Your task to perform on an android device: Empty the shopping cart on ebay. Add beats solo 3 to the cart on ebay, then select checkout. Image 0: 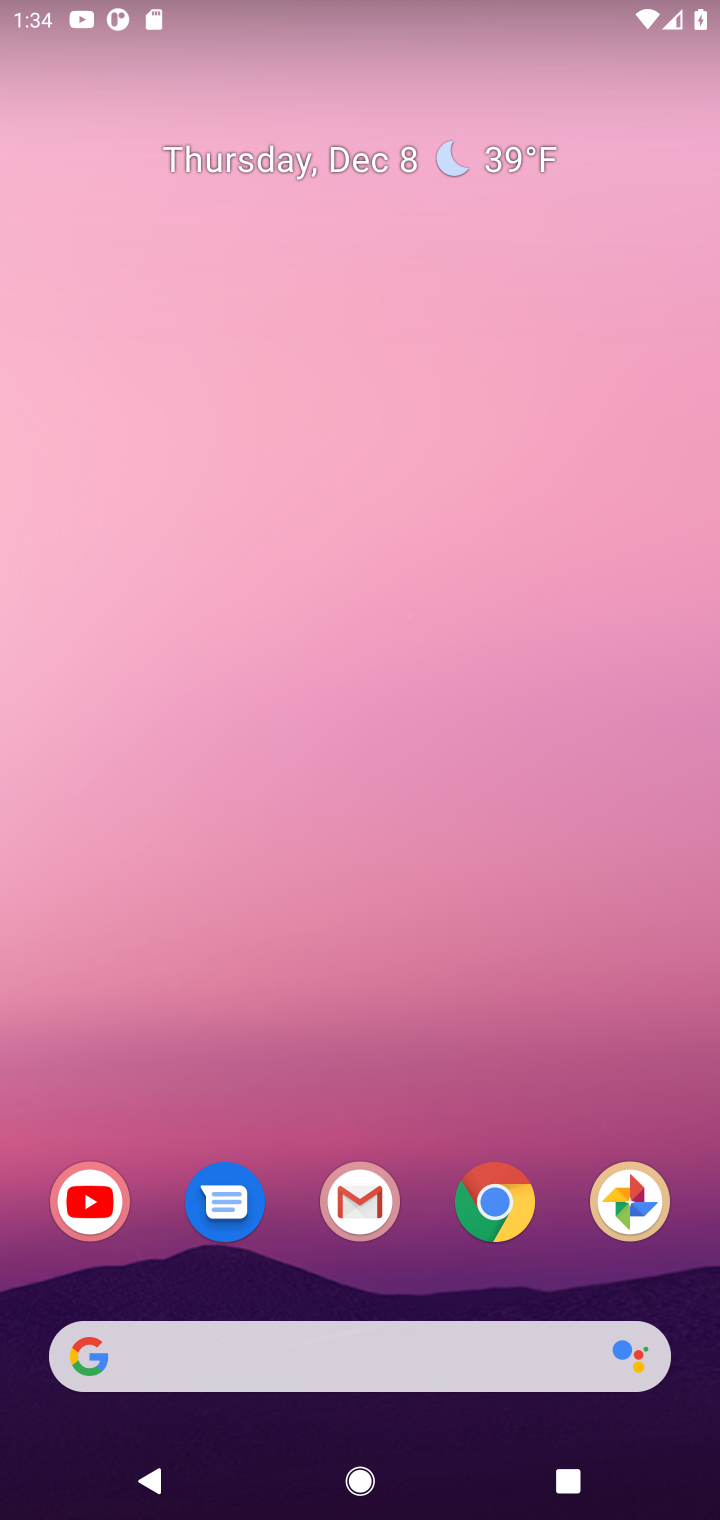
Step 0: click (515, 1208)
Your task to perform on an android device: Empty the shopping cart on ebay. Add beats solo 3 to the cart on ebay, then select checkout. Image 1: 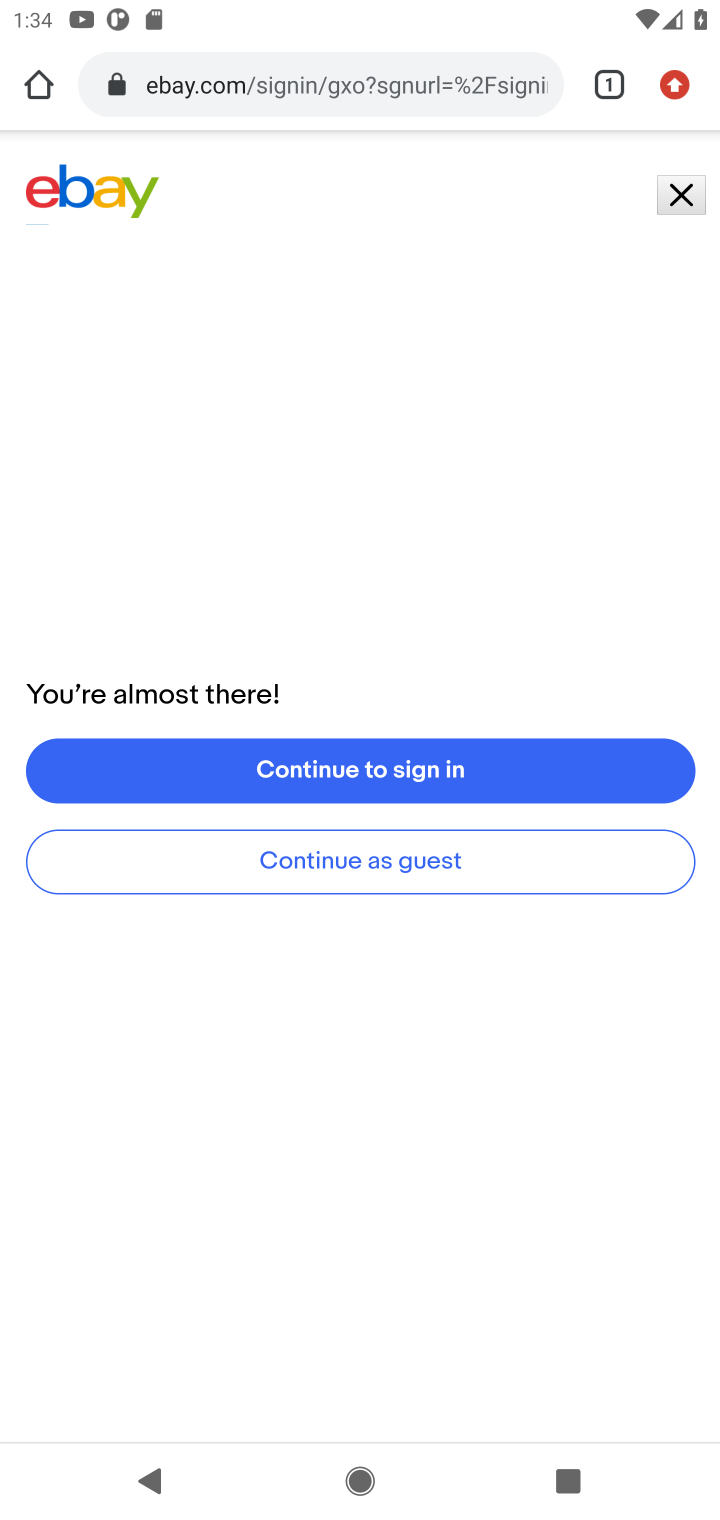
Step 1: click (419, 67)
Your task to perform on an android device: Empty the shopping cart on ebay. Add beats solo 3 to the cart on ebay, then select checkout. Image 2: 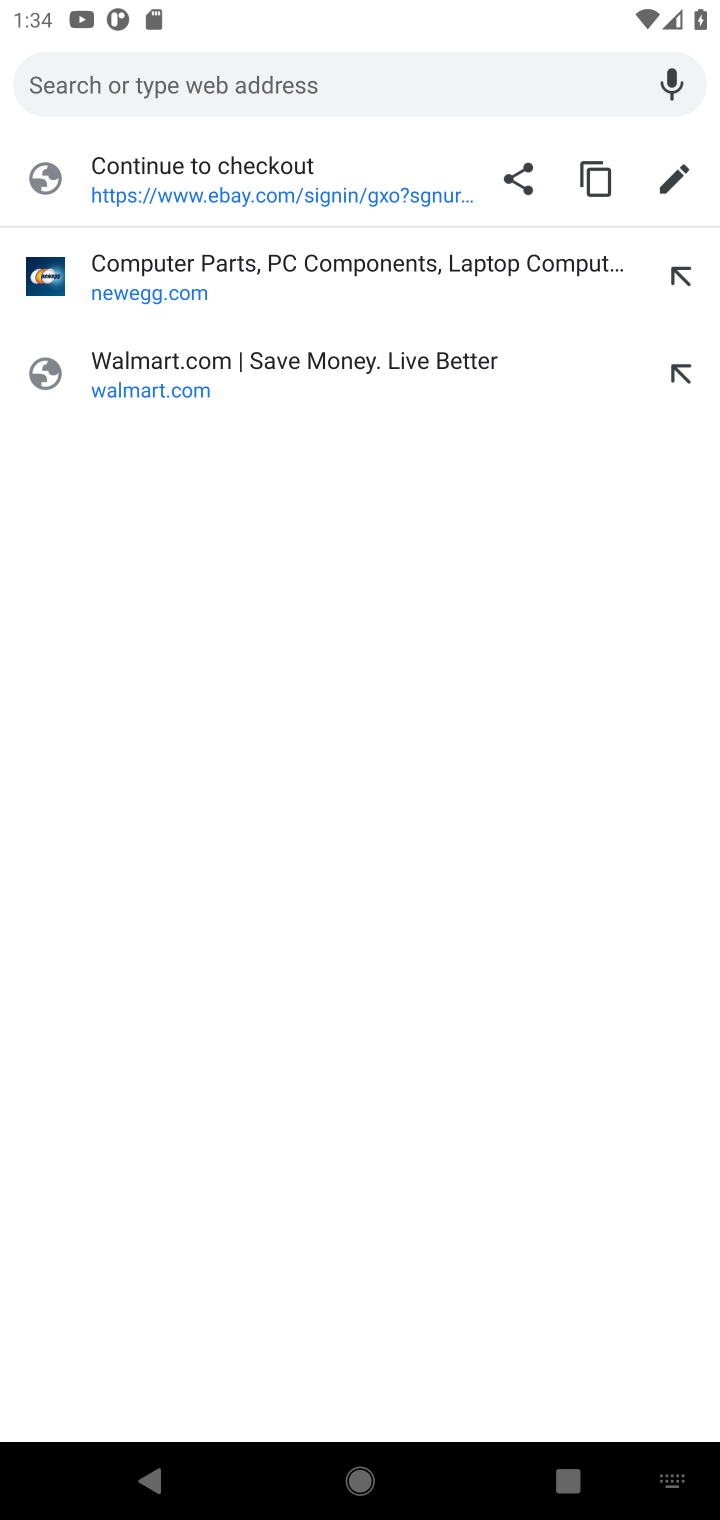
Step 2: click (275, 181)
Your task to perform on an android device: Empty the shopping cart on ebay. Add beats solo 3 to the cart on ebay, then select checkout. Image 3: 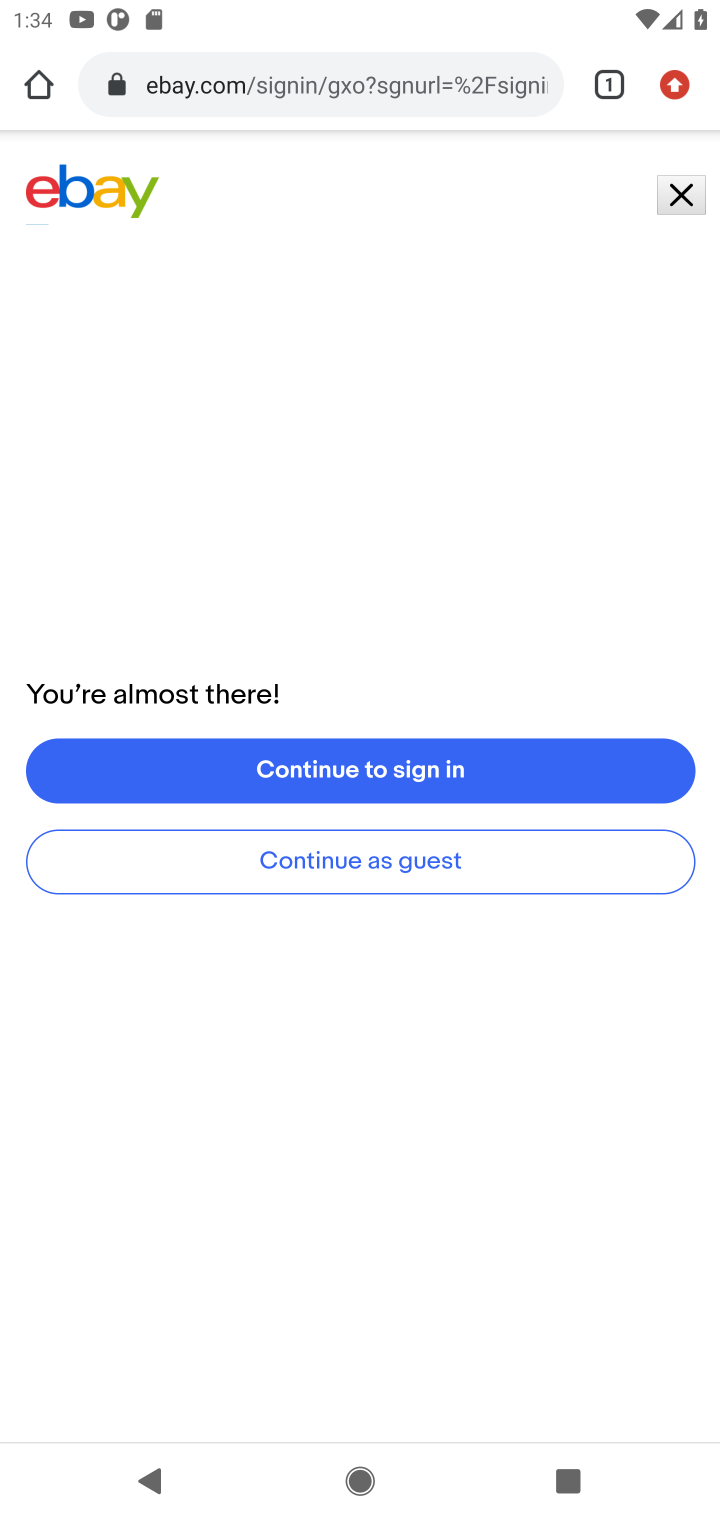
Step 3: press back button
Your task to perform on an android device: Empty the shopping cart on ebay. Add beats solo 3 to the cart on ebay, then select checkout. Image 4: 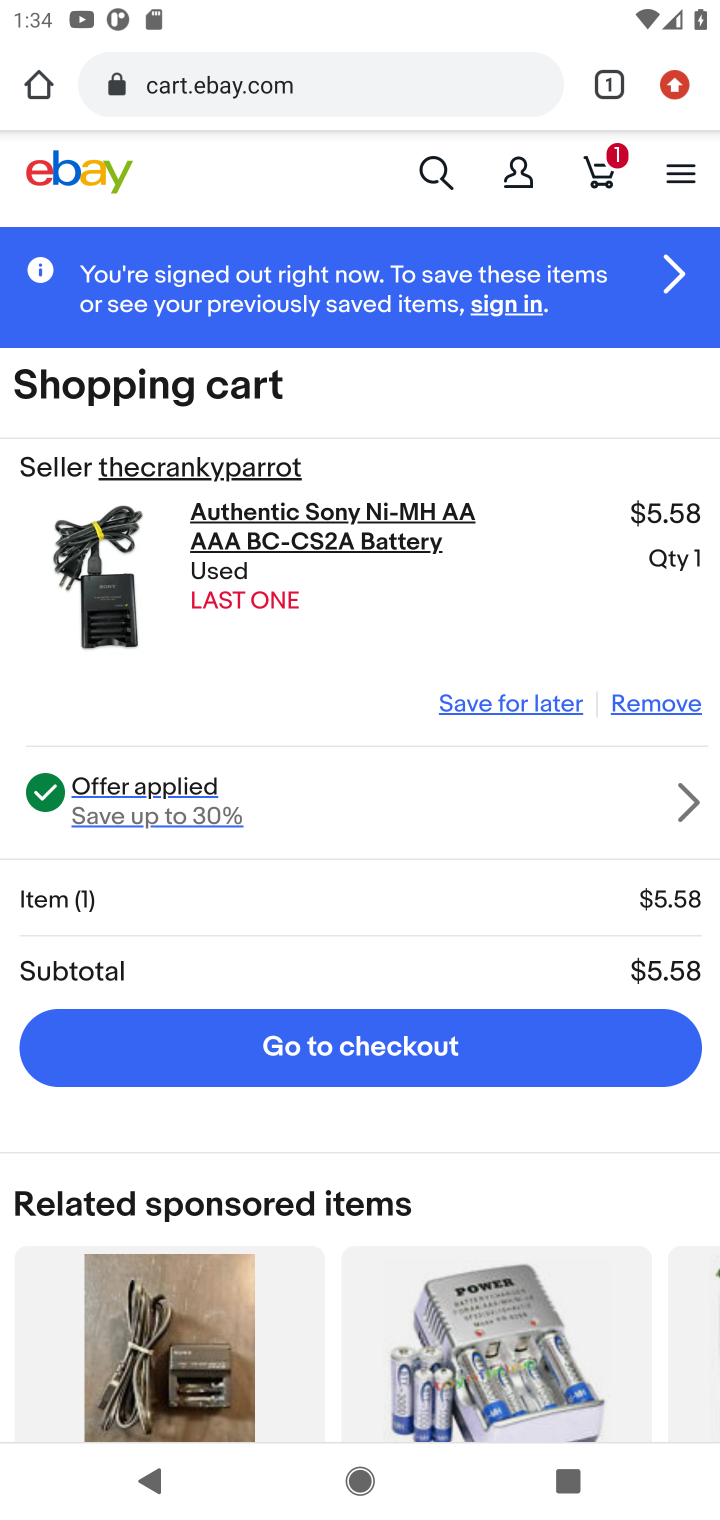
Step 4: click (639, 706)
Your task to perform on an android device: Empty the shopping cart on ebay. Add beats solo 3 to the cart on ebay, then select checkout. Image 5: 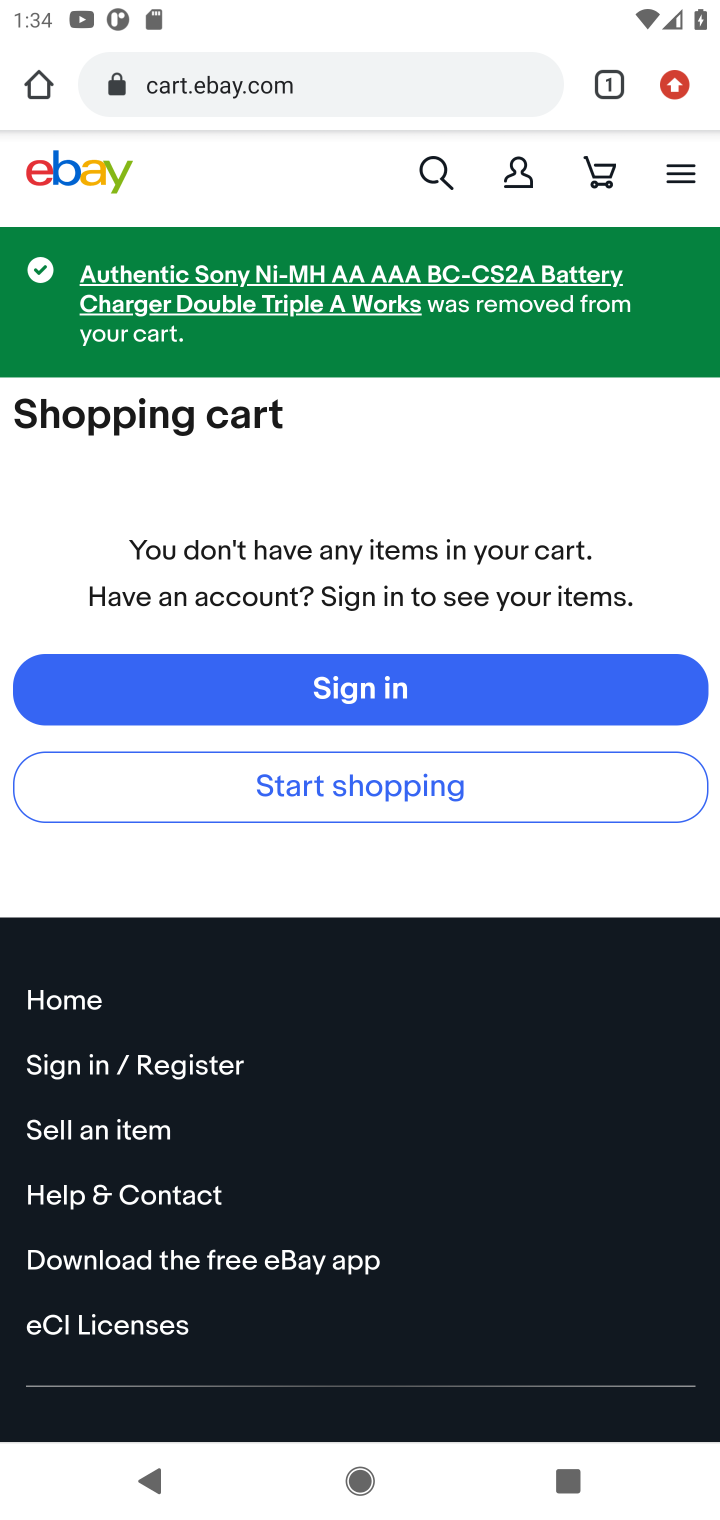
Step 5: click (443, 166)
Your task to perform on an android device: Empty the shopping cart on ebay. Add beats solo 3 to the cart on ebay, then select checkout. Image 6: 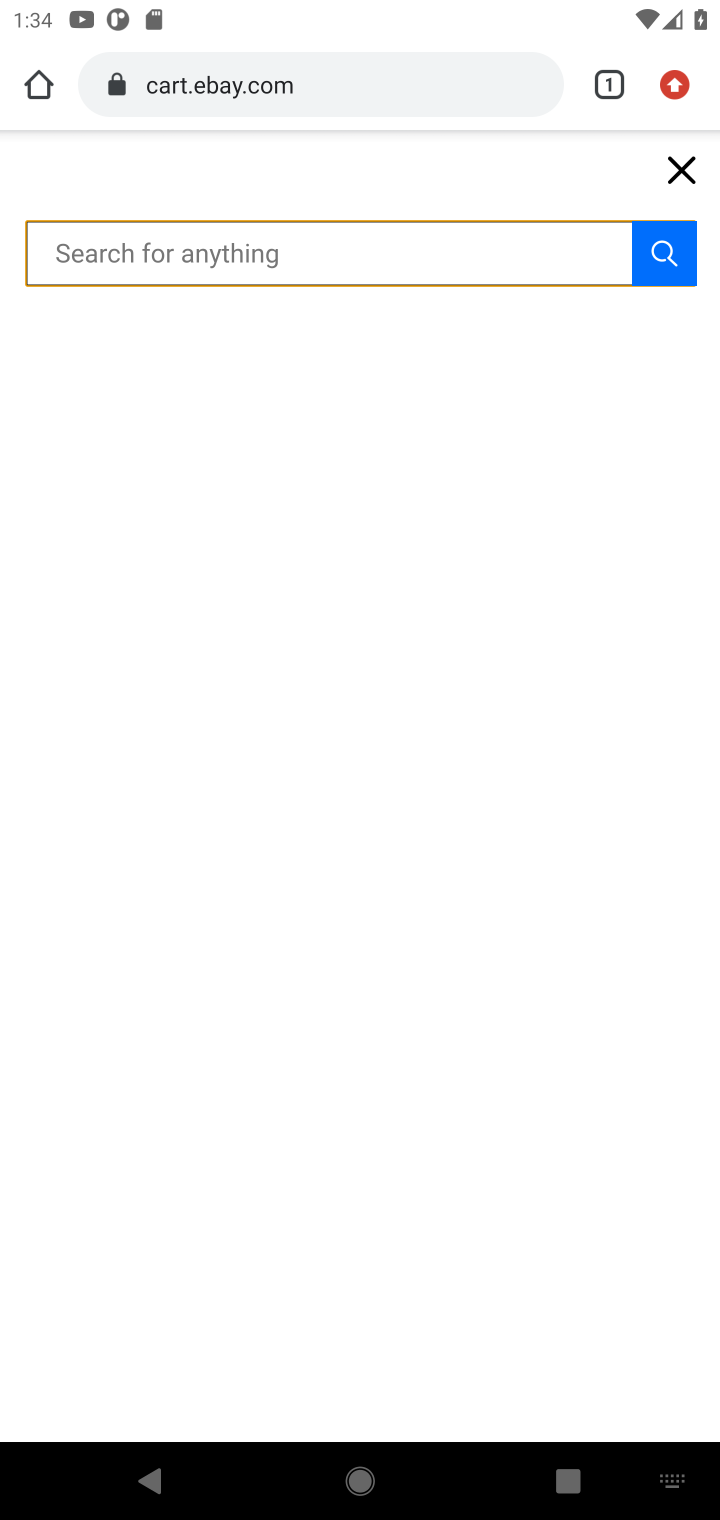
Step 6: type "beats solo 3"
Your task to perform on an android device: Empty the shopping cart on ebay. Add beats solo 3 to the cart on ebay, then select checkout. Image 7: 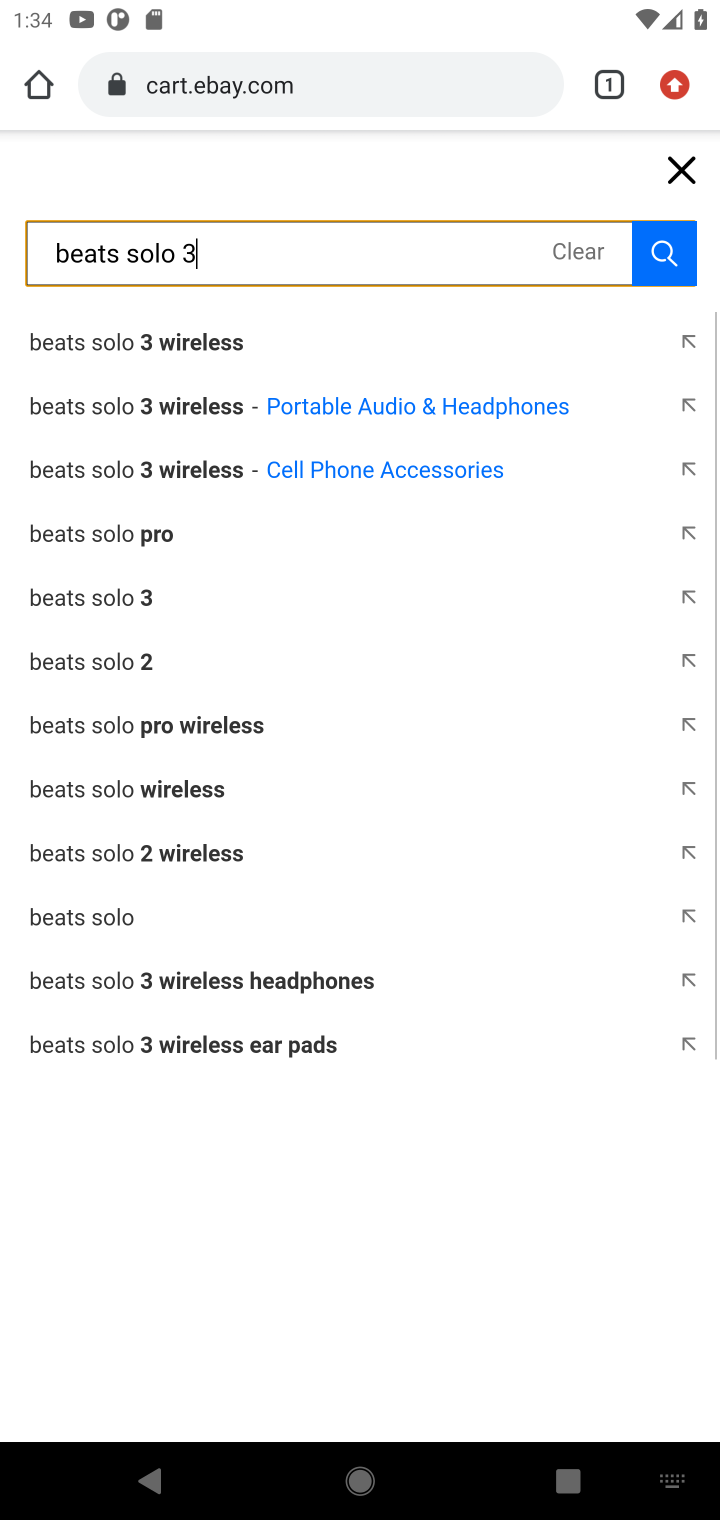
Step 7: press enter
Your task to perform on an android device: Empty the shopping cart on ebay. Add beats solo 3 to the cart on ebay, then select checkout. Image 8: 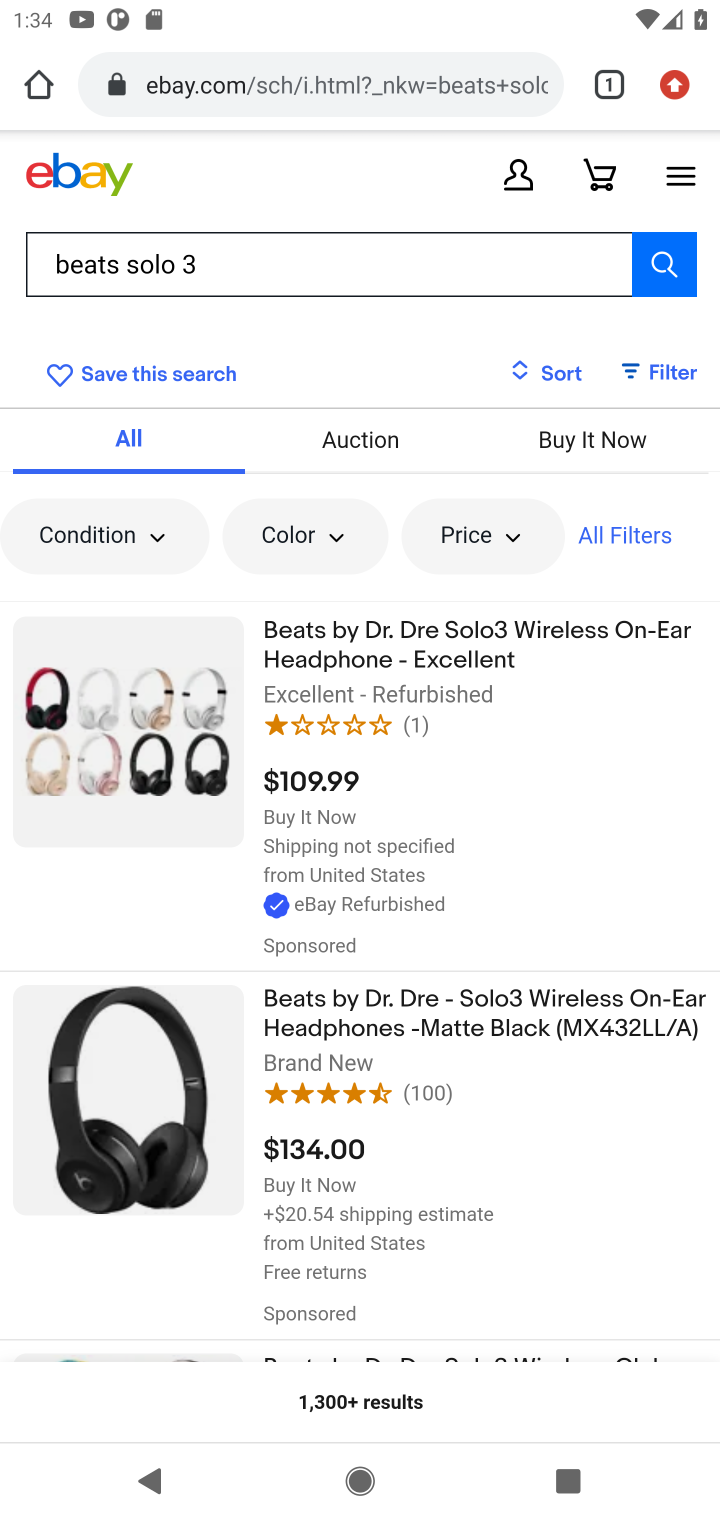
Step 8: click (135, 1061)
Your task to perform on an android device: Empty the shopping cart on ebay. Add beats solo 3 to the cart on ebay, then select checkout. Image 9: 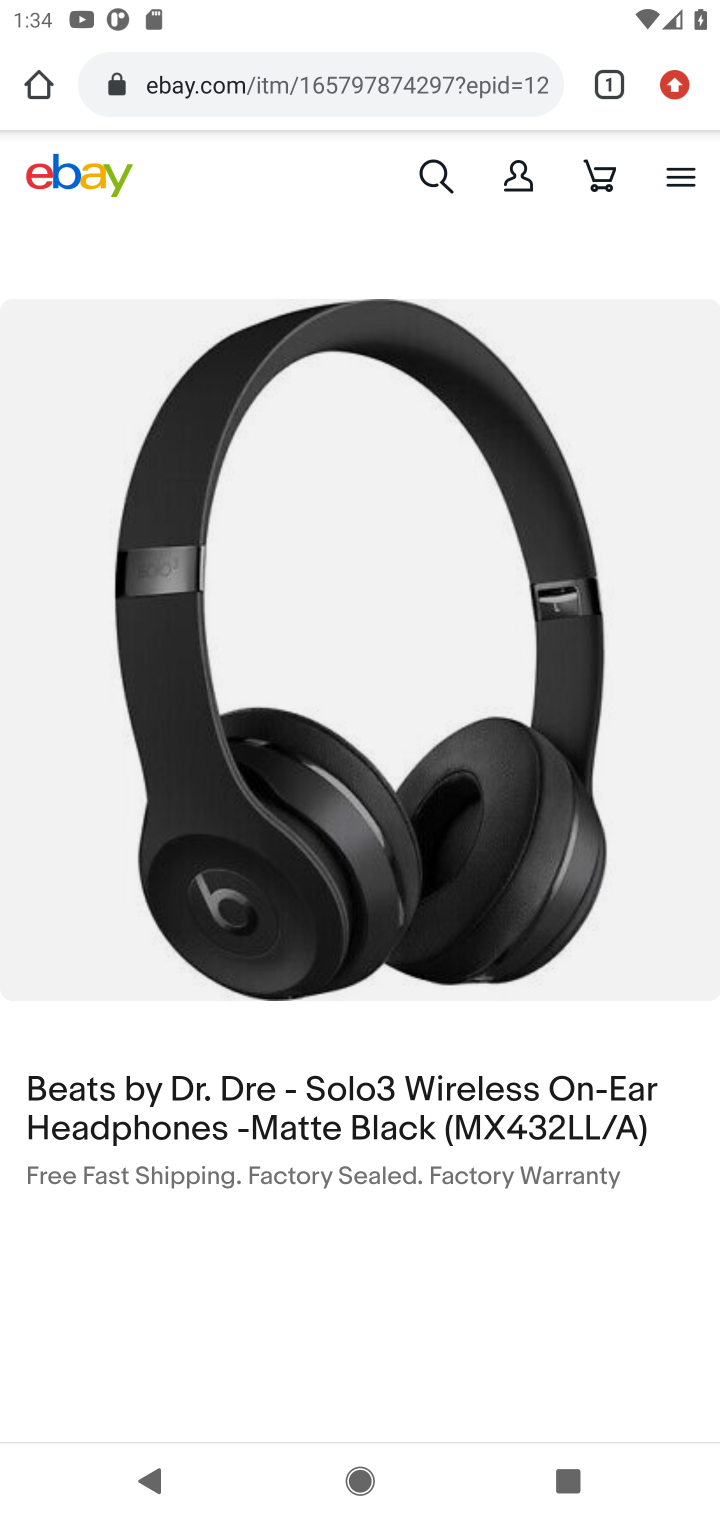
Step 9: drag from (456, 680) to (525, 555)
Your task to perform on an android device: Empty the shopping cart on ebay. Add beats solo 3 to the cart on ebay, then select checkout. Image 10: 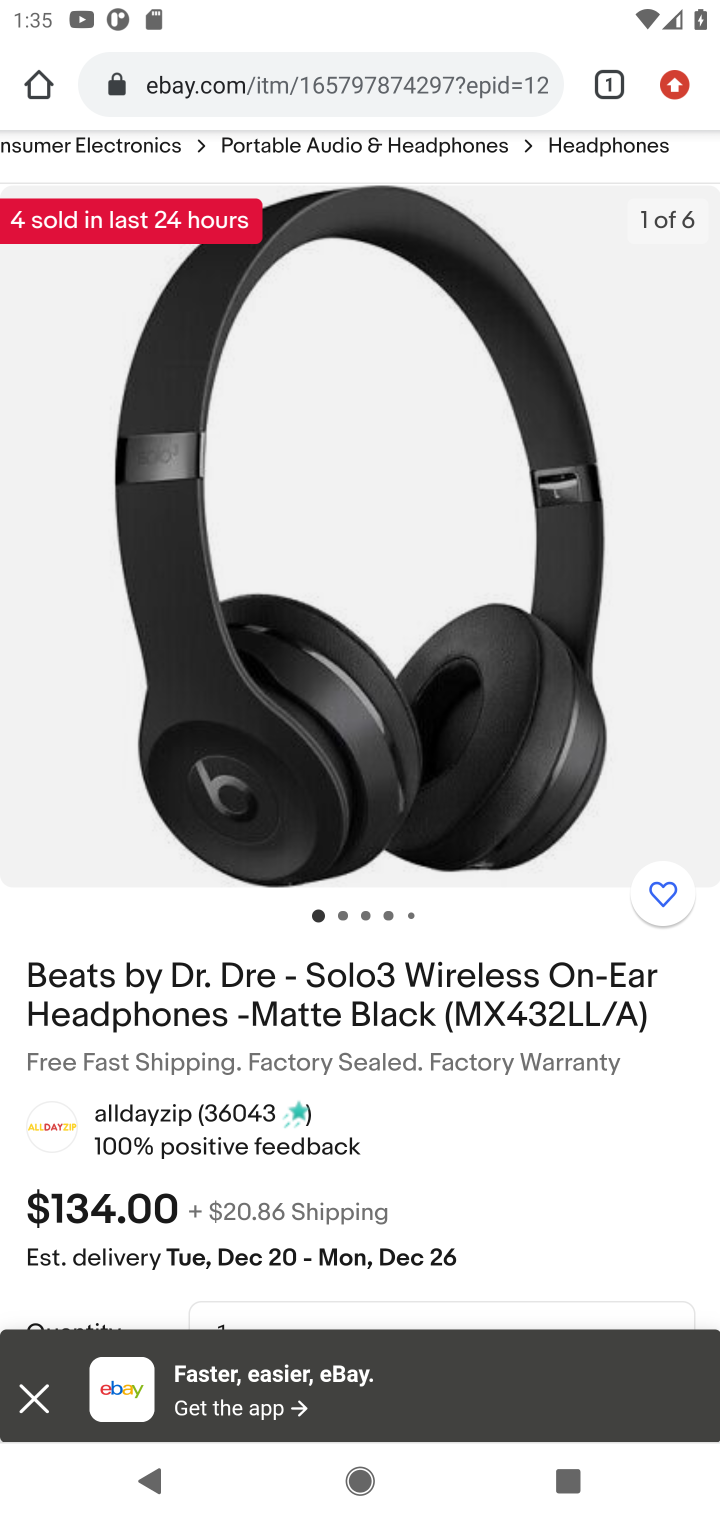
Step 10: drag from (530, 742) to (585, 475)
Your task to perform on an android device: Empty the shopping cart on ebay. Add beats solo 3 to the cart on ebay, then select checkout. Image 11: 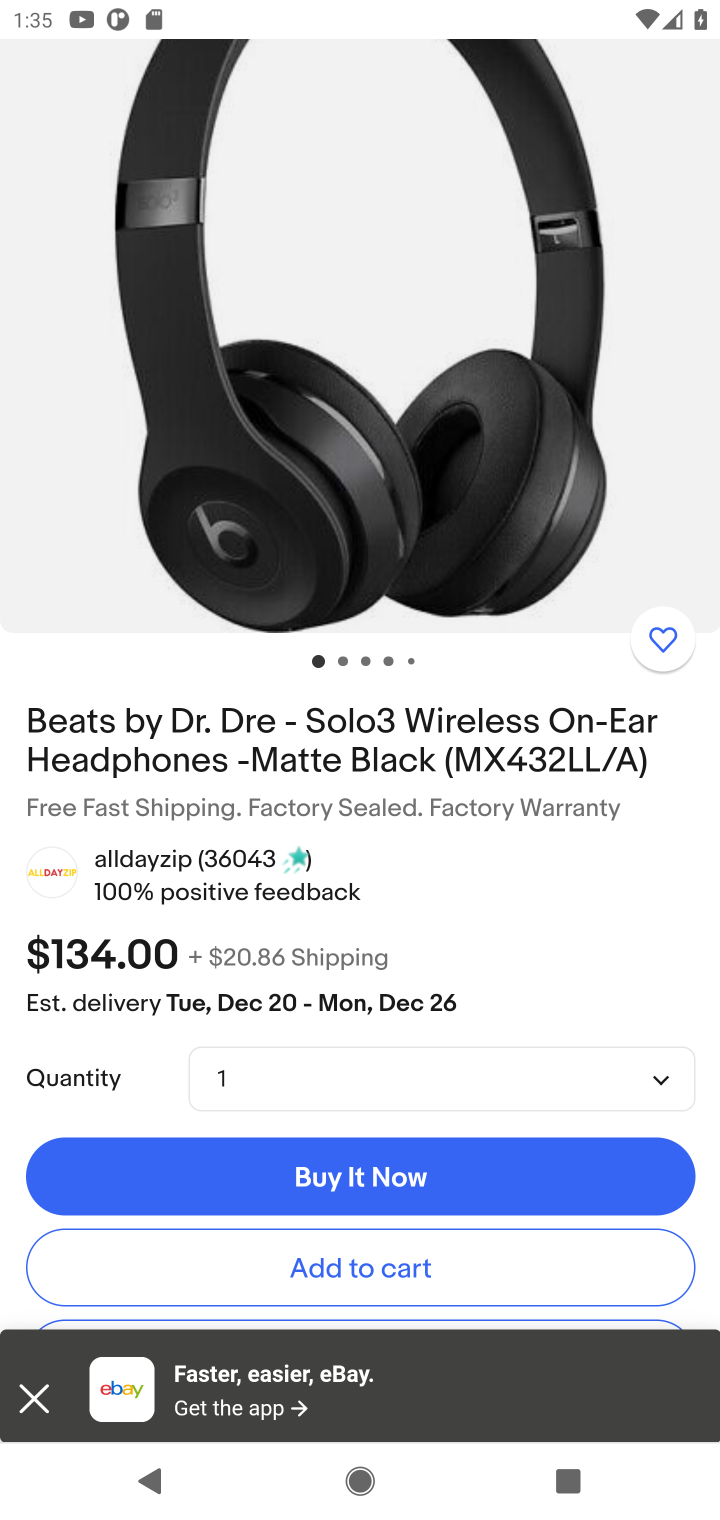
Step 11: click (496, 1267)
Your task to perform on an android device: Empty the shopping cart on ebay. Add beats solo 3 to the cart on ebay, then select checkout. Image 12: 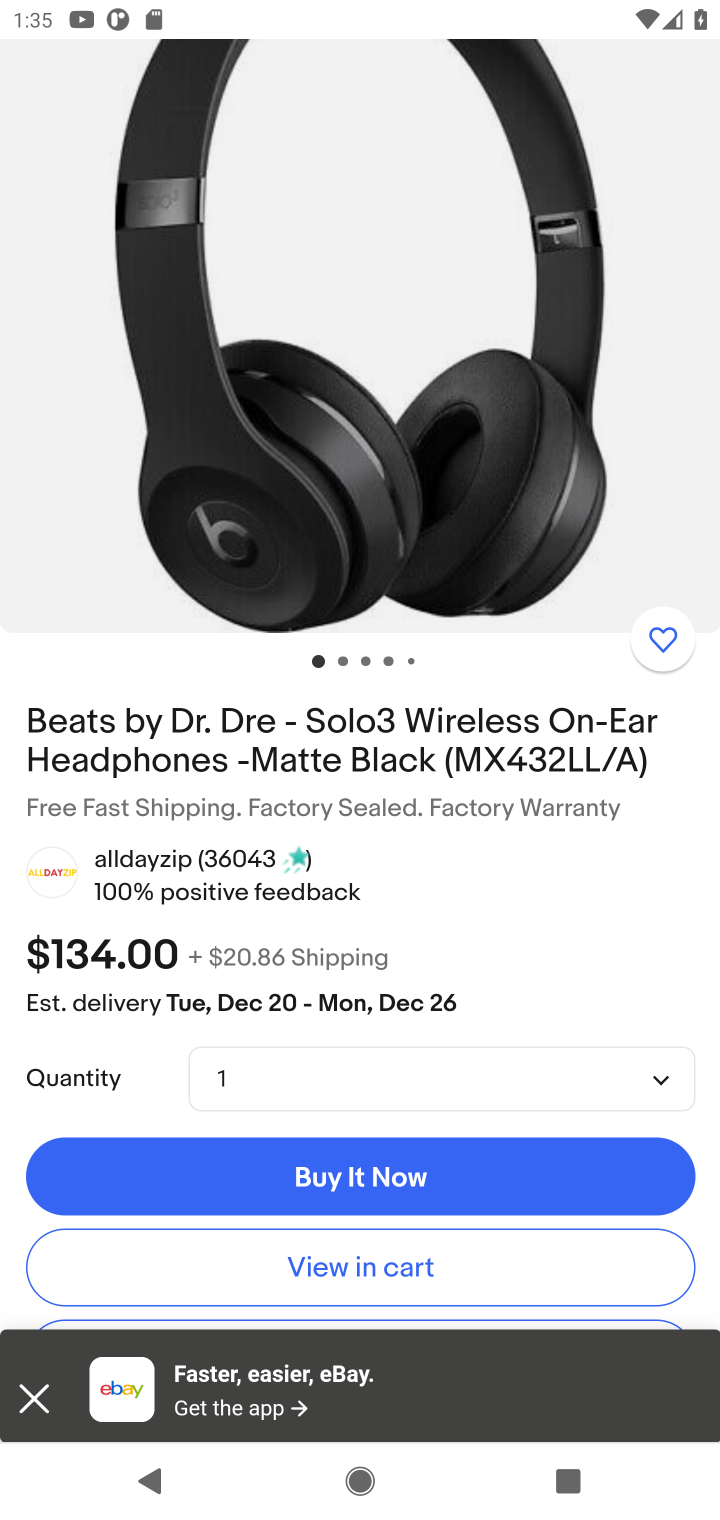
Step 12: click (483, 1267)
Your task to perform on an android device: Empty the shopping cart on ebay. Add beats solo 3 to the cart on ebay, then select checkout. Image 13: 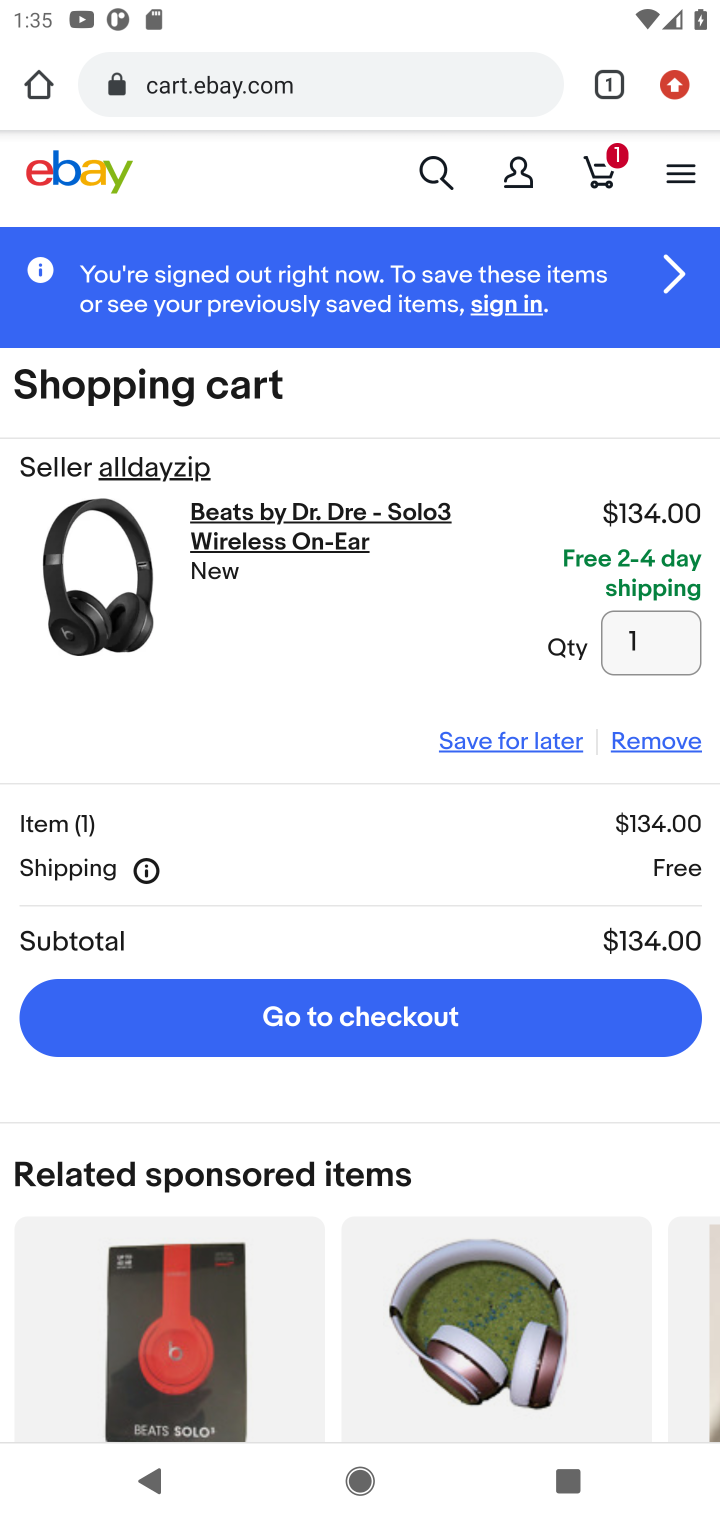
Step 13: click (407, 1028)
Your task to perform on an android device: Empty the shopping cart on ebay. Add beats solo 3 to the cart on ebay, then select checkout. Image 14: 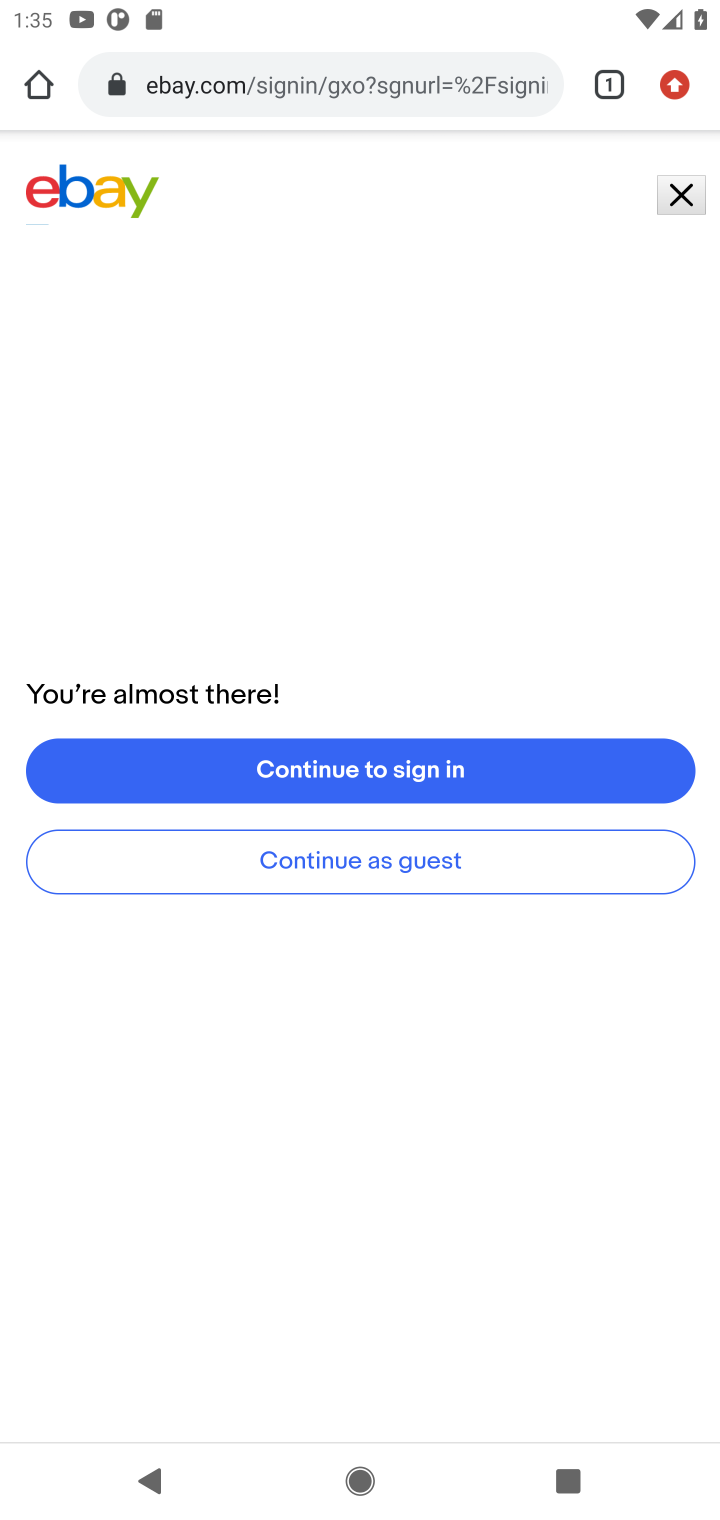
Step 14: task complete